Your task to perform on an android device: Open Chrome and go to settings Image 0: 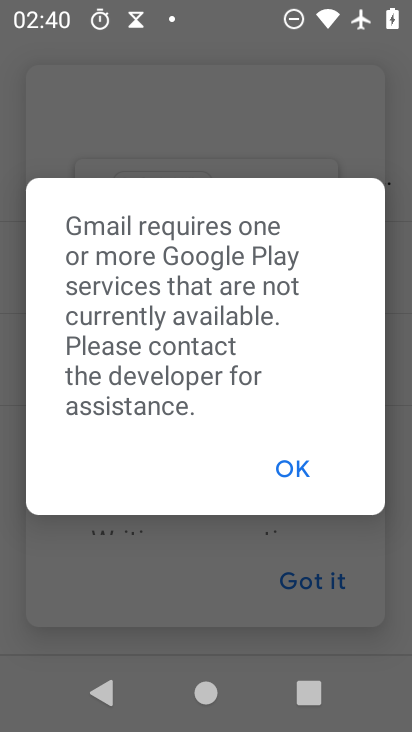
Step 0: press home button
Your task to perform on an android device: Open Chrome and go to settings Image 1: 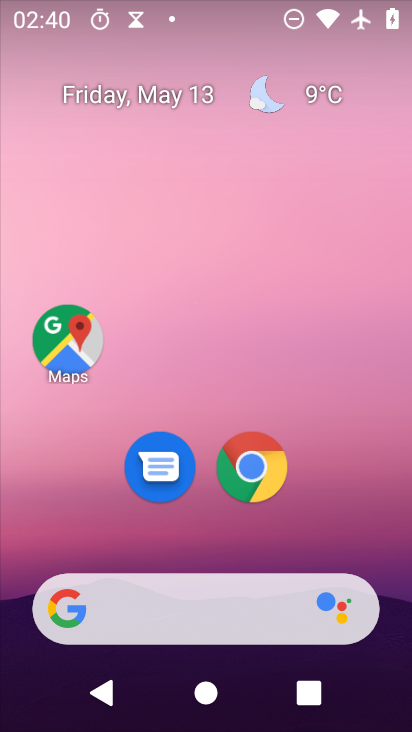
Step 1: click (245, 473)
Your task to perform on an android device: Open Chrome and go to settings Image 2: 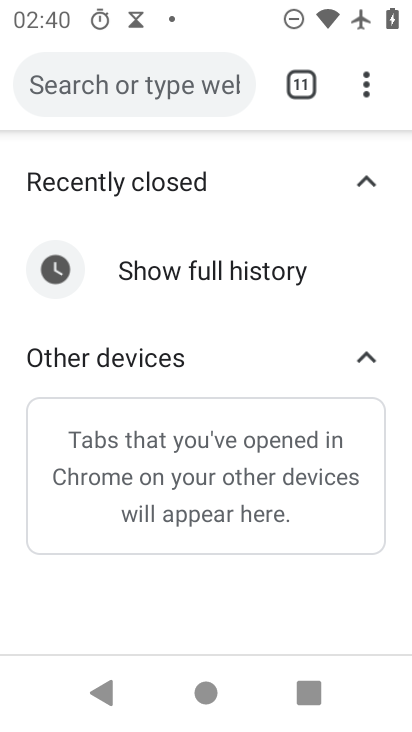
Step 2: click (363, 86)
Your task to perform on an android device: Open Chrome and go to settings Image 3: 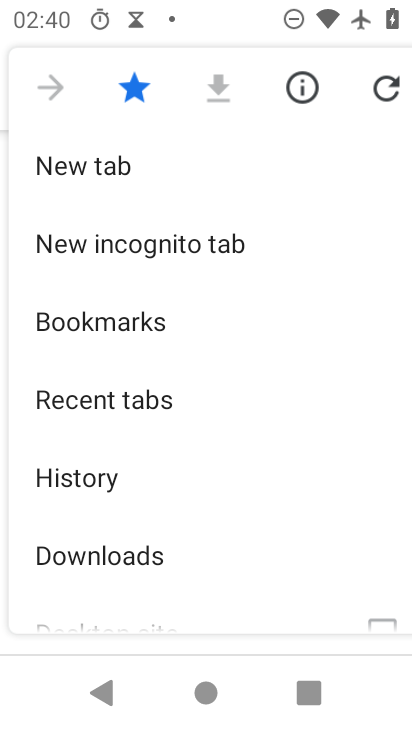
Step 3: drag from (209, 510) to (156, 68)
Your task to perform on an android device: Open Chrome and go to settings Image 4: 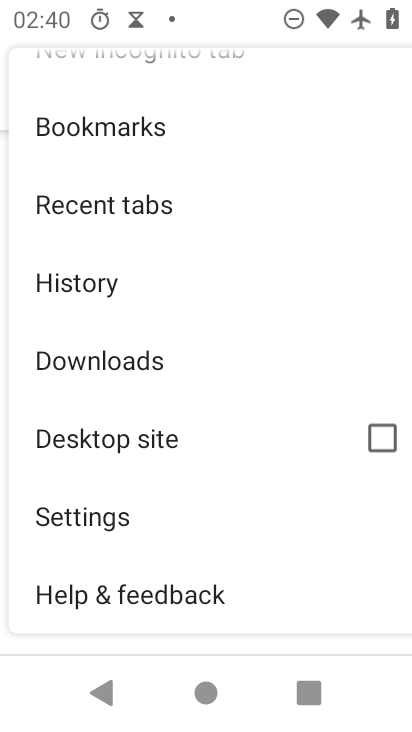
Step 4: click (162, 508)
Your task to perform on an android device: Open Chrome and go to settings Image 5: 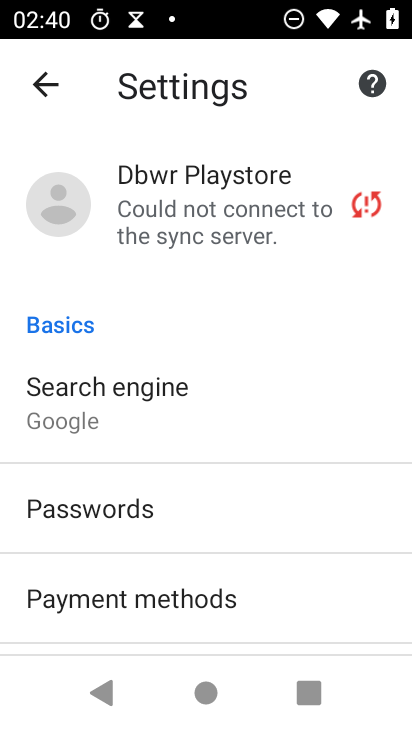
Step 5: task complete